Your task to perform on an android device: Open maps Image 0: 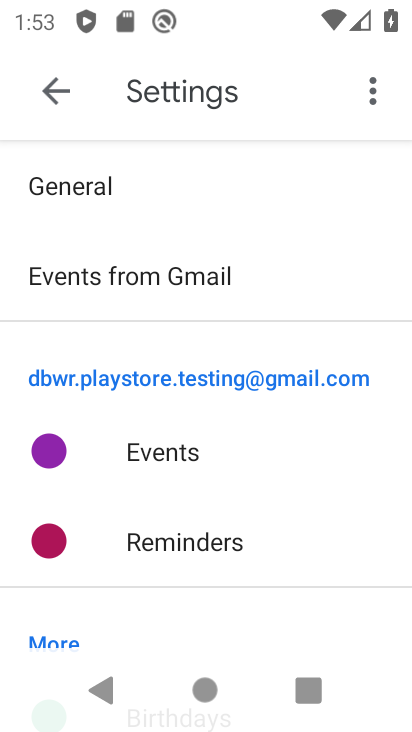
Step 0: press home button
Your task to perform on an android device: Open maps Image 1: 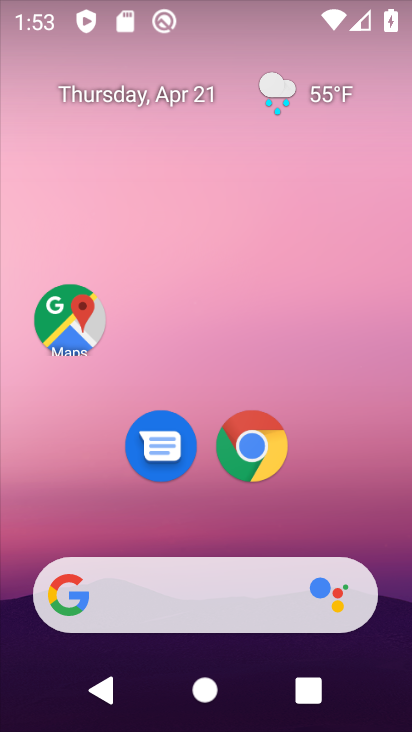
Step 1: drag from (193, 691) to (181, 179)
Your task to perform on an android device: Open maps Image 2: 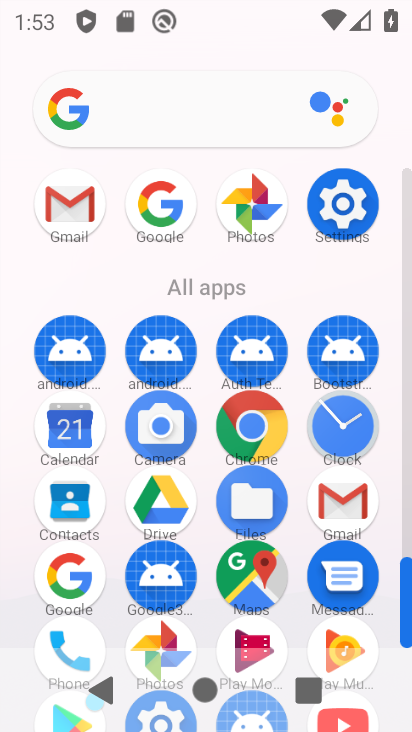
Step 2: click (252, 571)
Your task to perform on an android device: Open maps Image 3: 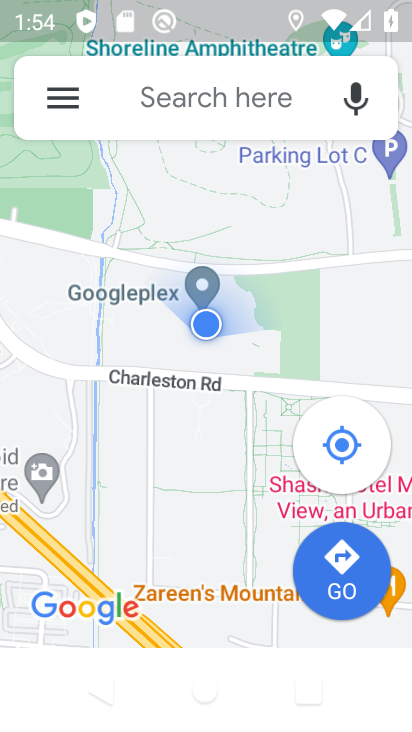
Step 3: task complete